Your task to perform on an android device: Show me popular videos on Youtube Image 0: 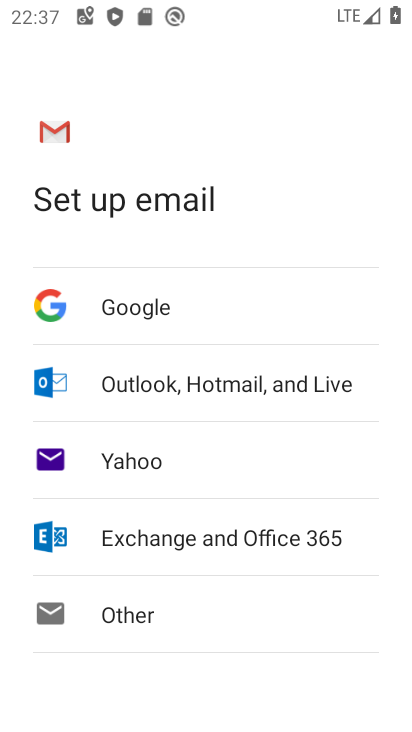
Step 0: press home button
Your task to perform on an android device: Show me popular videos on Youtube Image 1: 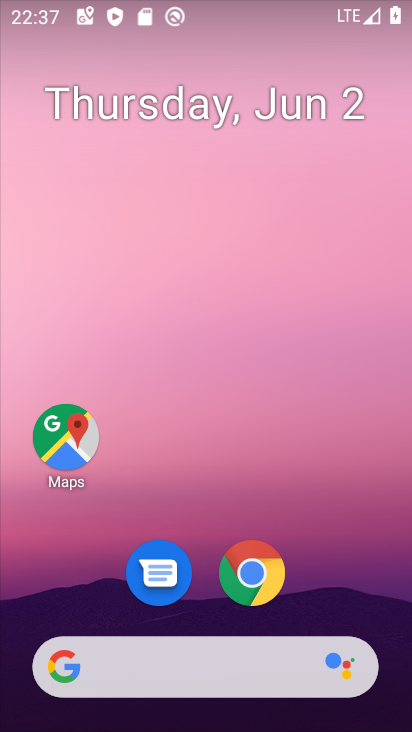
Step 1: drag from (336, 580) to (240, 127)
Your task to perform on an android device: Show me popular videos on Youtube Image 2: 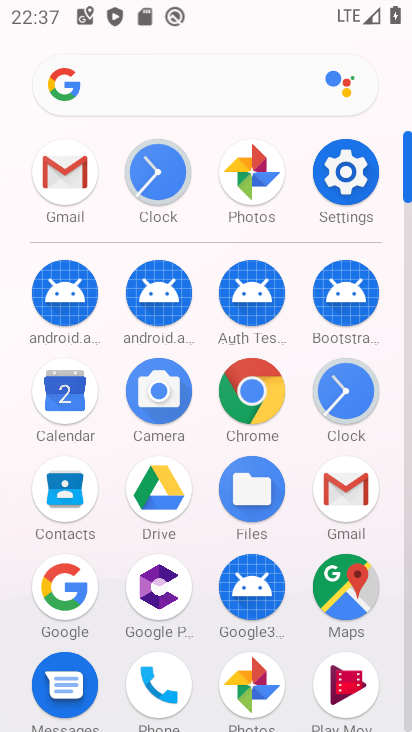
Step 2: drag from (298, 628) to (283, 334)
Your task to perform on an android device: Show me popular videos on Youtube Image 3: 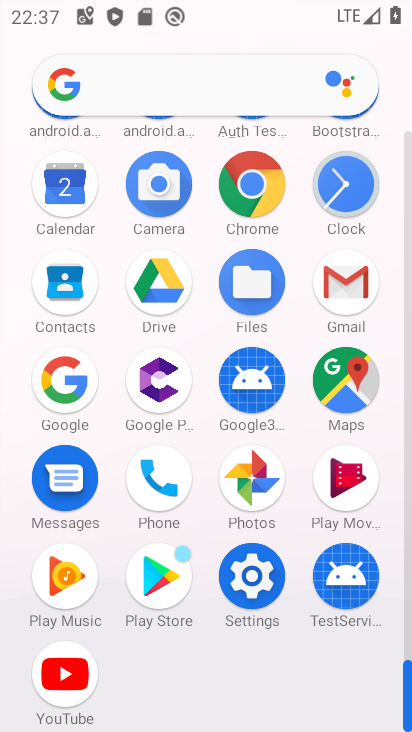
Step 3: click (64, 684)
Your task to perform on an android device: Show me popular videos on Youtube Image 4: 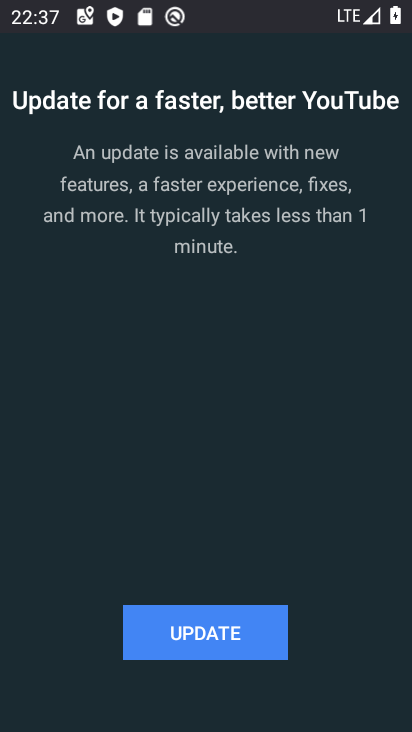
Step 4: click (235, 625)
Your task to perform on an android device: Show me popular videos on Youtube Image 5: 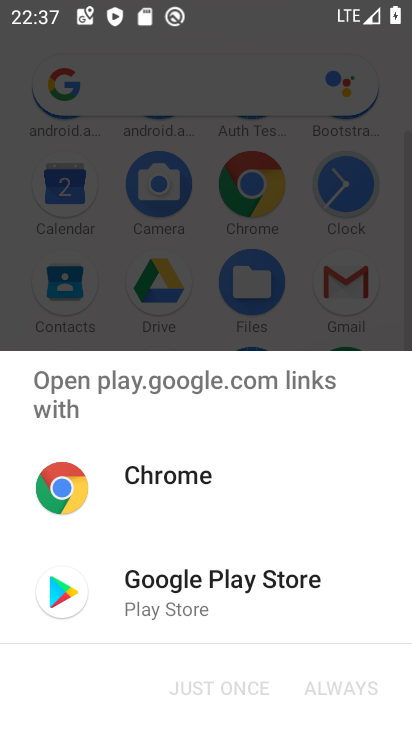
Step 5: click (193, 575)
Your task to perform on an android device: Show me popular videos on Youtube Image 6: 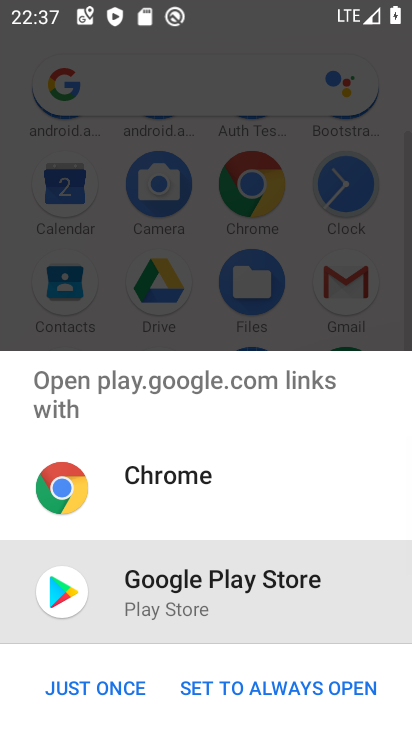
Step 6: click (95, 689)
Your task to perform on an android device: Show me popular videos on Youtube Image 7: 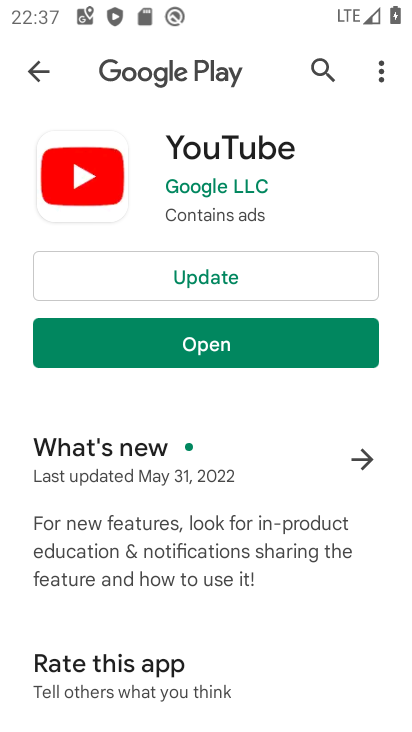
Step 7: click (211, 281)
Your task to perform on an android device: Show me popular videos on Youtube Image 8: 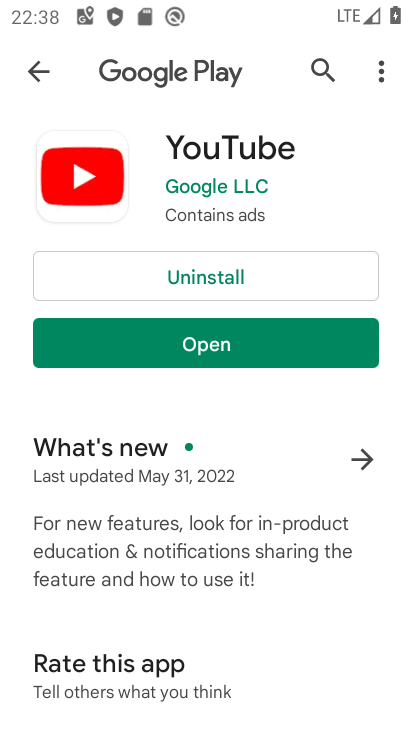
Step 8: click (265, 353)
Your task to perform on an android device: Show me popular videos on Youtube Image 9: 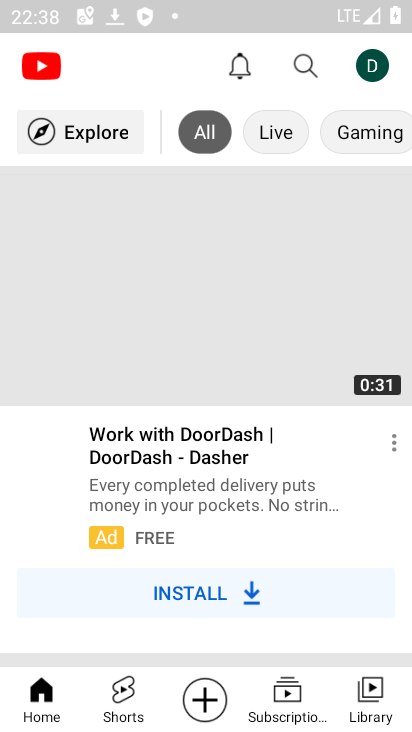
Step 9: click (301, 69)
Your task to perform on an android device: Show me popular videos on Youtube Image 10: 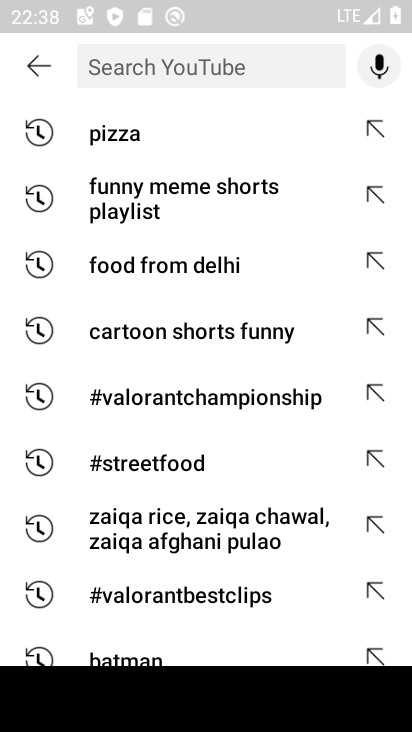
Step 10: type "popular videos"
Your task to perform on an android device: Show me popular videos on Youtube Image 11: 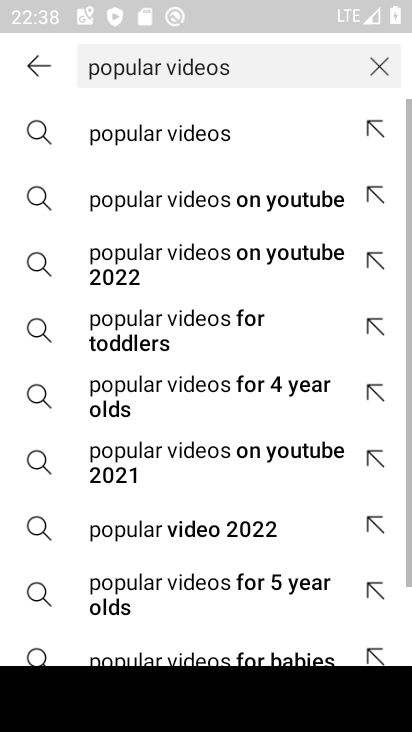
Step 11: click (200, 125)
Your task to perform on an android device: Show me popular videos on Youtube Image 12: 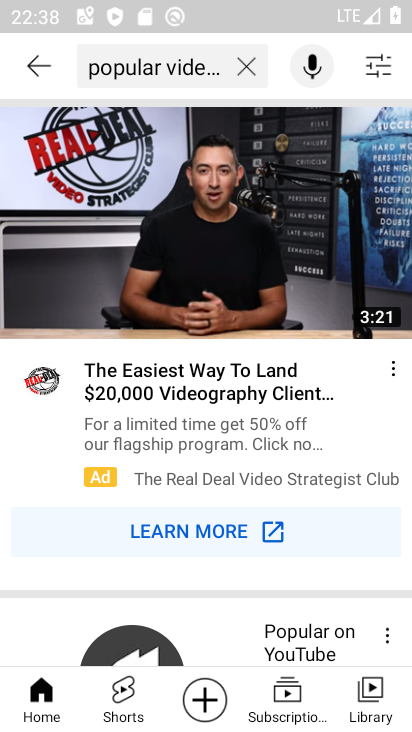
Step 12: task complete